Your task to perform on an android device: turn off notifications in google photos Image 0: 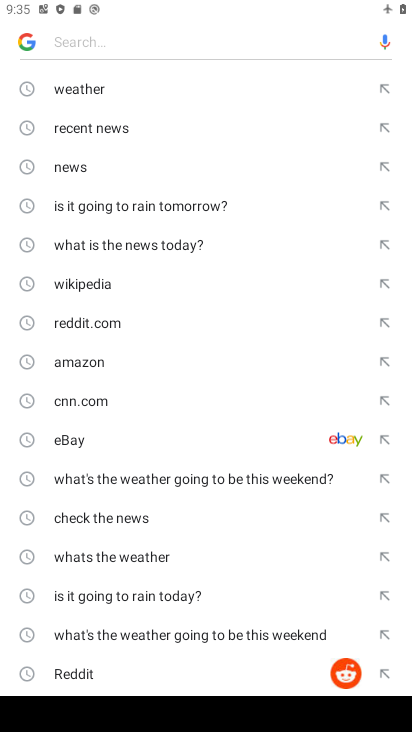
Step 0: press home button
Your task to perform on an android device: turn off notifications in google photos Image 1: 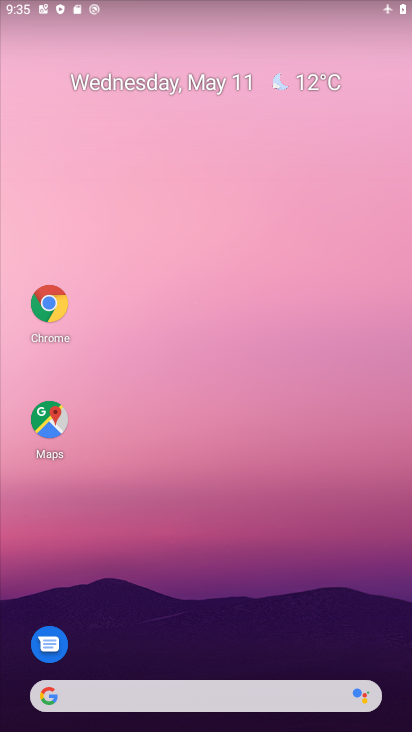
Step 1: drag from (141, 616) to (163, 100)
Your task to perform on an android device: turn off notifications in google photos Image 2: 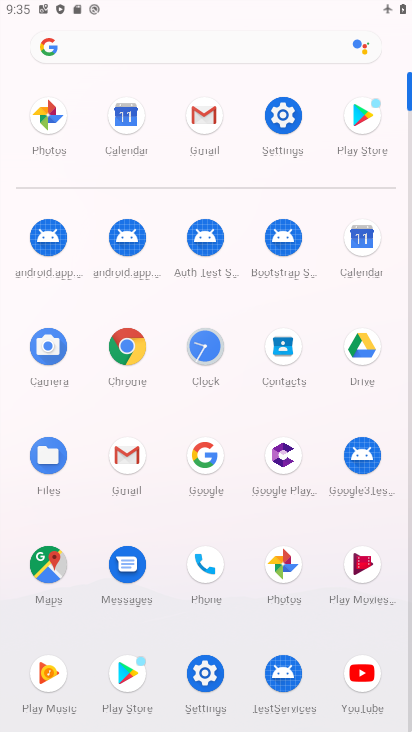
Step 2: click (283, 581)
Your task to perform on an android device: turn off notifications in google photos Image 3: 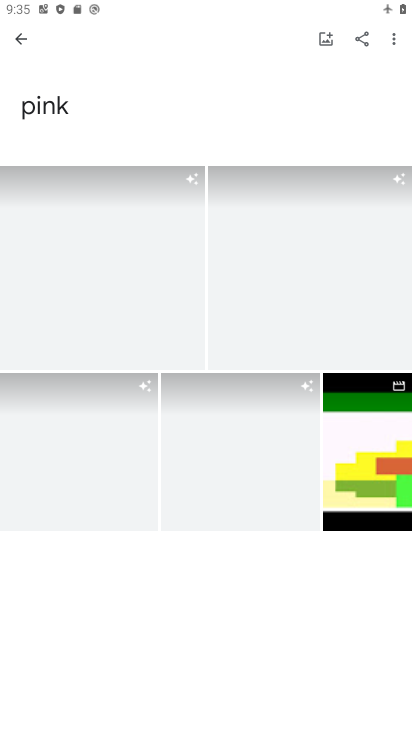
Step 3: press back button
Your task to perform on an android device: turn off notifications in google photos Image 4: 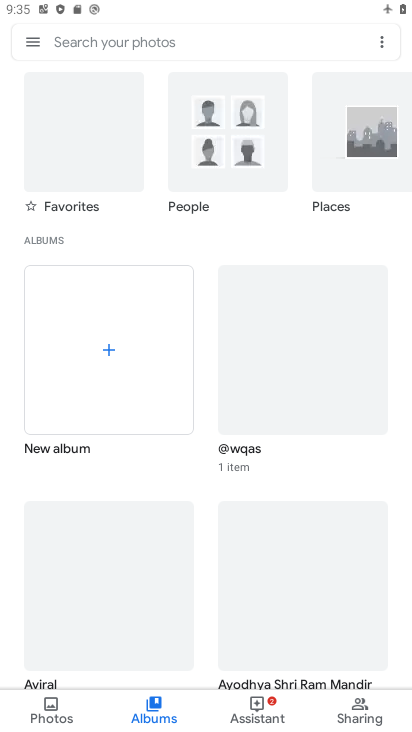
Step 4: press back button
Your task to perform on an android device: turn off notifications in google photos Image 5: 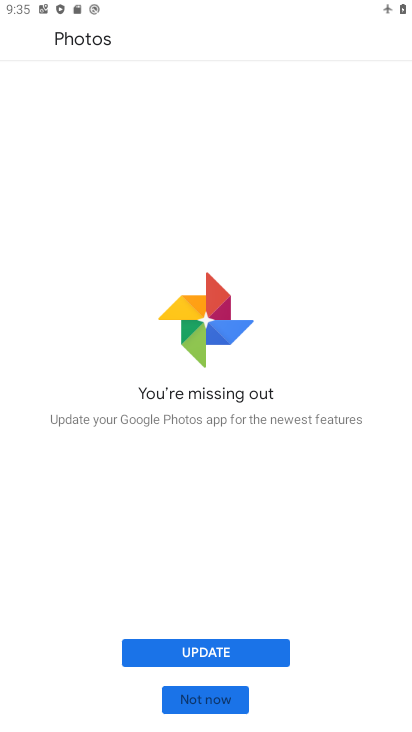
Step 5: click (220, 697)
Your task to perform on an android device: turn off notifications in google photos Image 6: 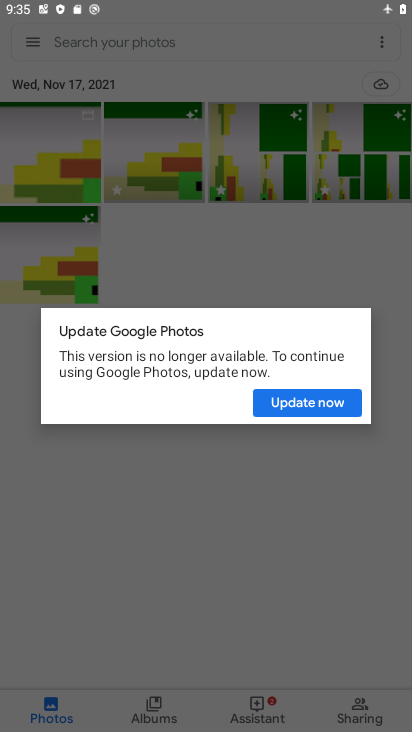
Step 6: click (305, 409)
Your task to perform on an android device: turn off notifications in google photos Image 7: 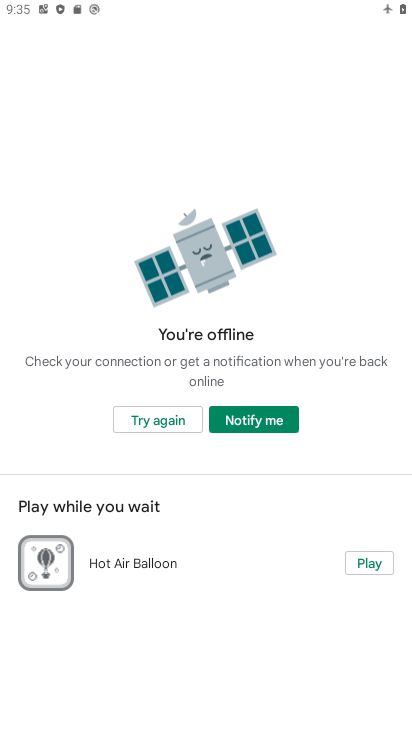
Step 7: press back button
Your task to perform on an android device: turn off notifications in google photos Image 8: 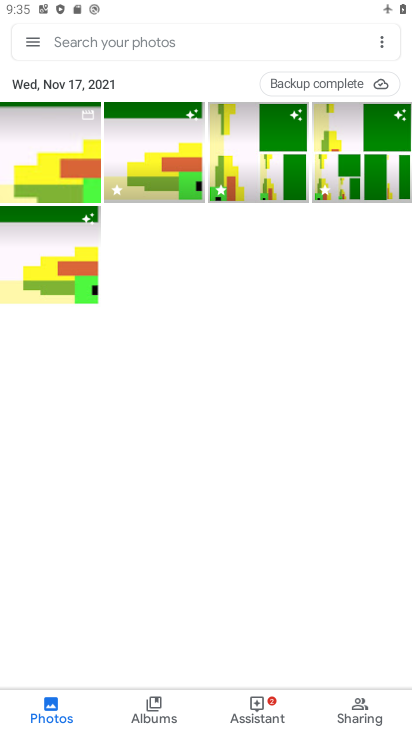
Step 8: click (30, 42)
Your task to perform on an android device: turn off notifications in google photos Image 9: 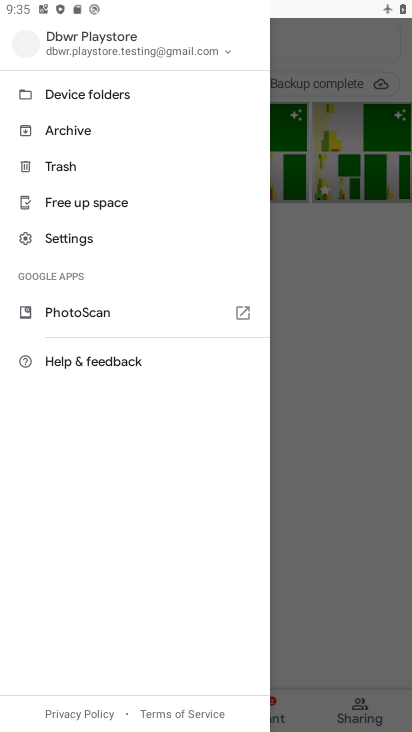
Step 9: click (60, 249)
Your task to perform on an android device: turn off notifications in google photos Image 10: 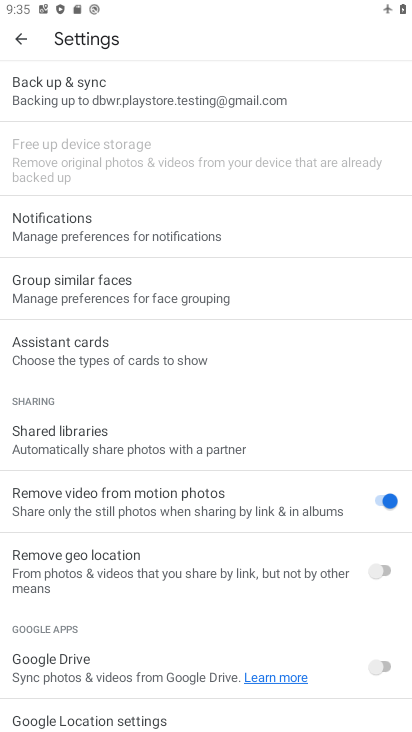
Step 10: click (153, 220)
Your task to perform on an android device: turn off notifications in google photos Image 11: 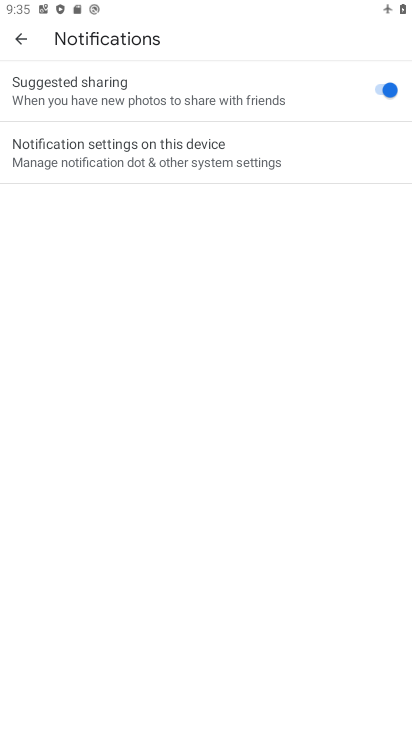
Step 11: click (175, 157)
Your task to perform on an android device: turn off notifications in google photos Image 12: 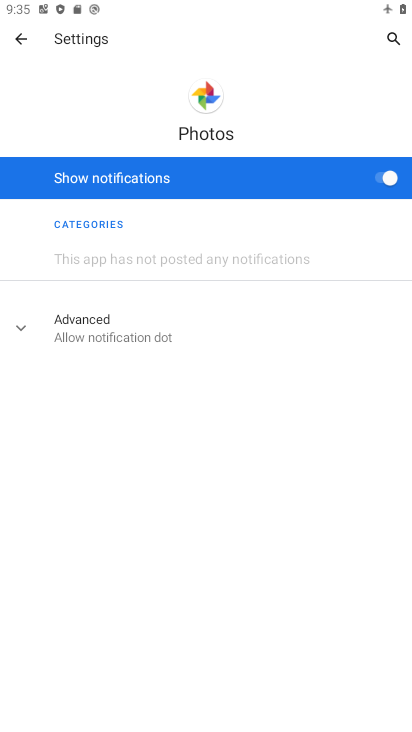
Step 12: click (388, 178)
Your task to perform on an android device: turn off notifications in google photos Image 13: 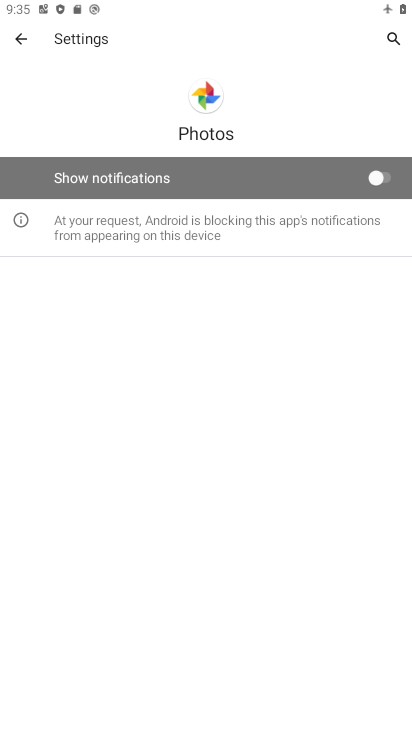
Step 13: task complete